Your task to perform on an android device: change timer sound Image 0: 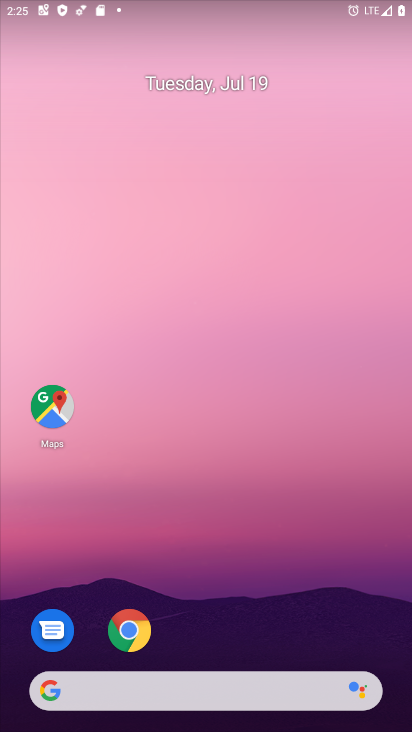
Step 0: drag from (219, 656) to (264, 20)
Your task to perform on an android device: change timer sound Image 1: 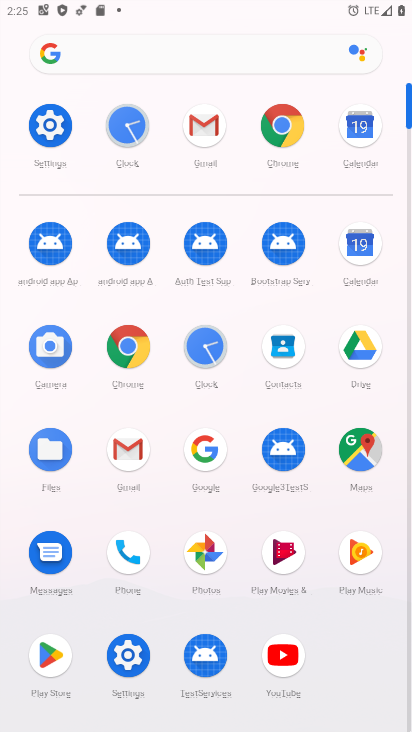
Step 1: click (204, 342)
Your task to perform on an android device: change timer sound Image 2: 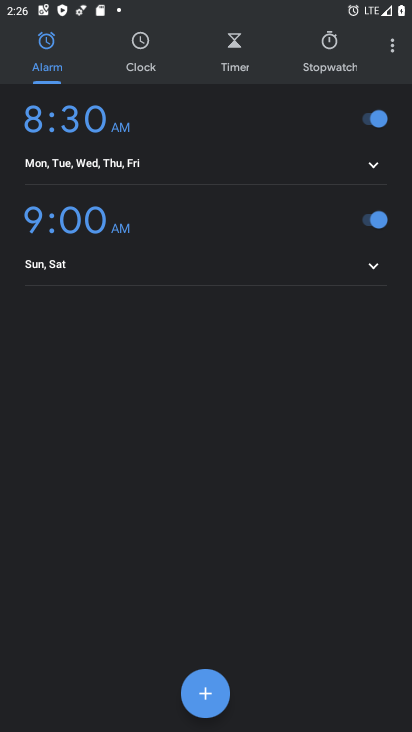
Step 2: click (388, 42)
Your task to perform on an android device: change timer sound Image 3: 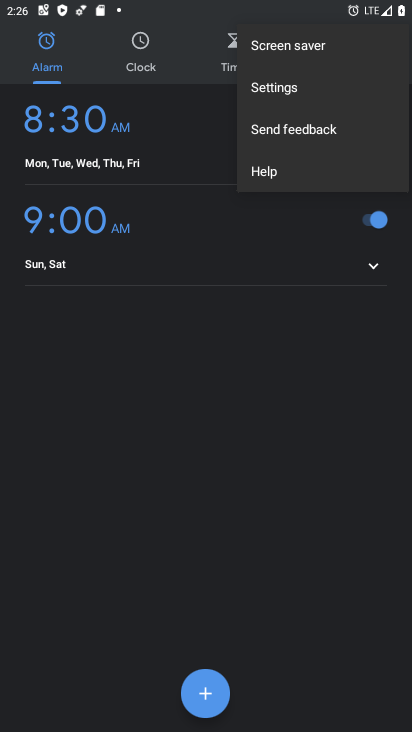
Step 3: click (305, 87)
Your task to perform on an android device: change timer sound Image 4: 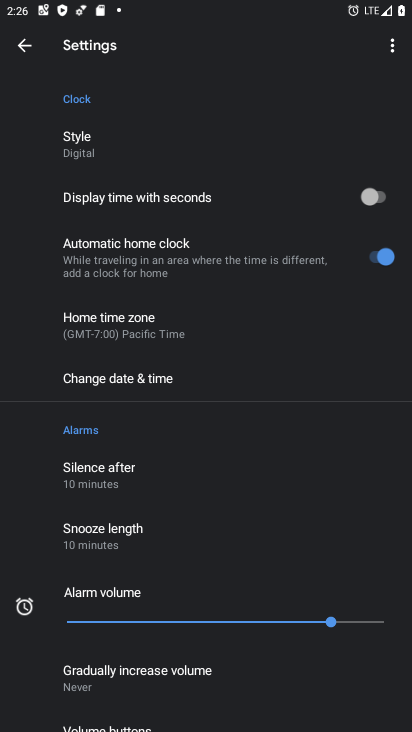
Step 4: drag from (223, 671) to (268, 217)
Your task to perform on an android device: change timer sound Image 5: 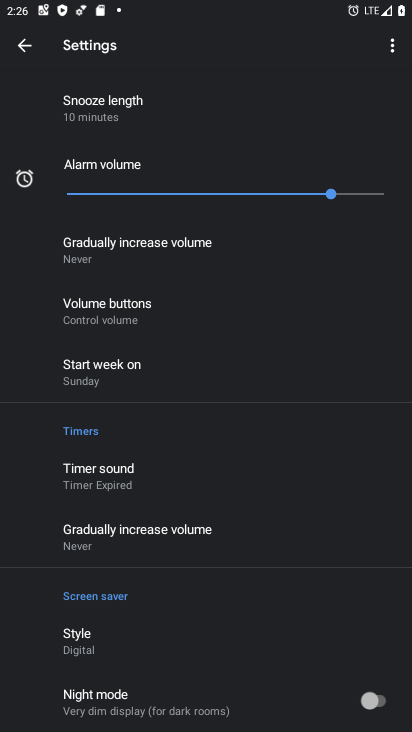
Step 5: click (157, 477)
Your task to perform on an android device: change timer sound Image 6: 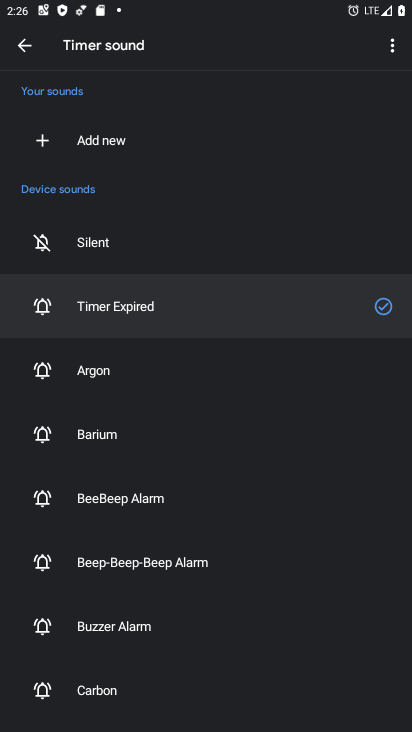
Step 6: click (173, 629)
Your task to perform on an android device: change timer sound Image 7: 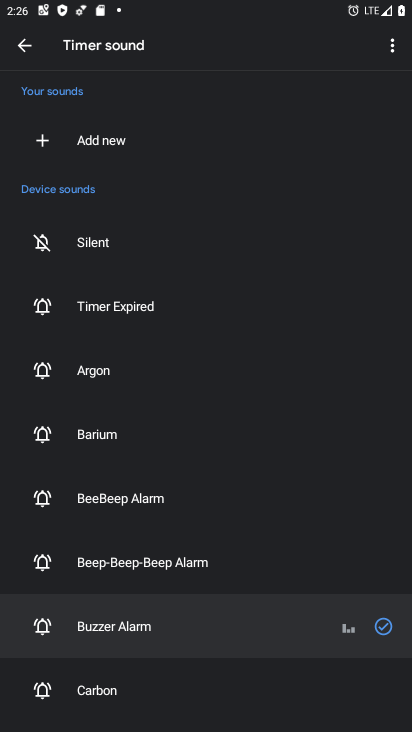
Step 7: task complete